Your task to perform on an android device: turn off notifications in google photos Image 0: 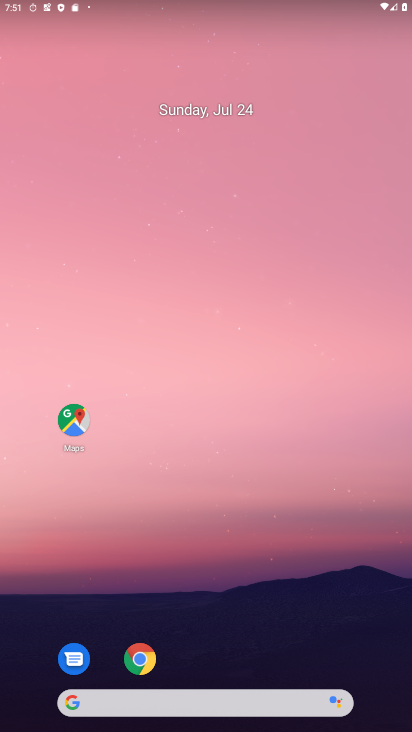
Step 0: drag from (280, 601) to (193, 96)
Your task to perform on an android device: turn off notifications in google photos Image 1: 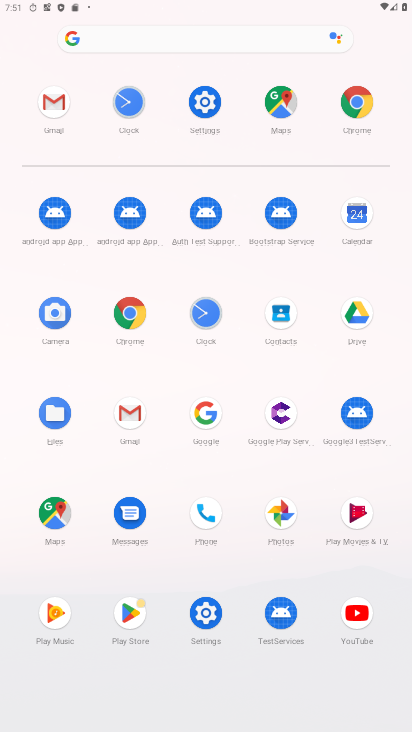
Step 1: click (275, 512)
Your task to perform on an android device: turn off notifications in google photos Image 2: 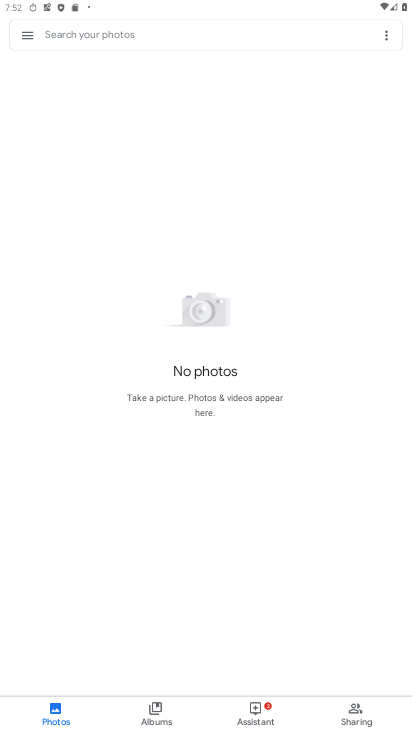
Step 2: click (26, 35)
Your task to perform on an android device: turn off notifications in google photos Image 3: 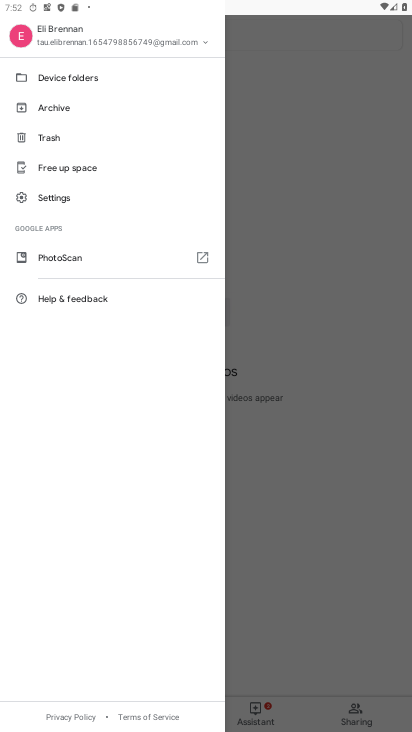
Step 3: click (70, 199)
Your task to perform on an android device: turn off notifications in google photos Image 4: 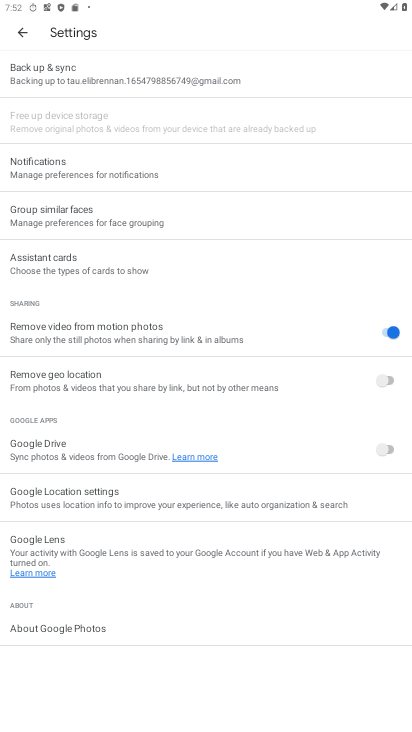
Step 4: click (145, 176)
Your task to perform on an android device: turn off notifications in google photos Image 5: 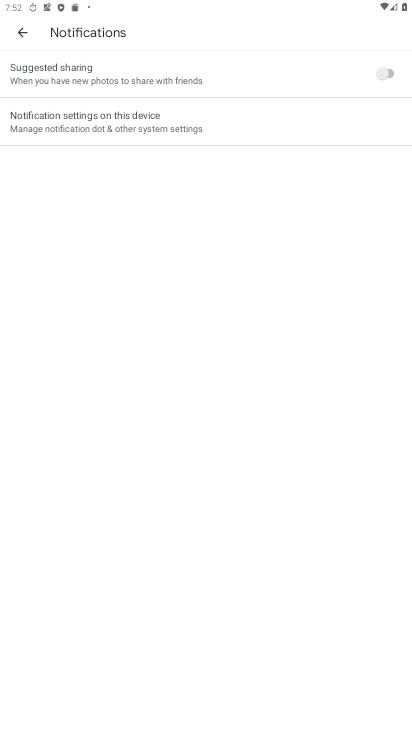
Step 5: task complete